Your task to perform on an android device: turn off wifi Image 0: 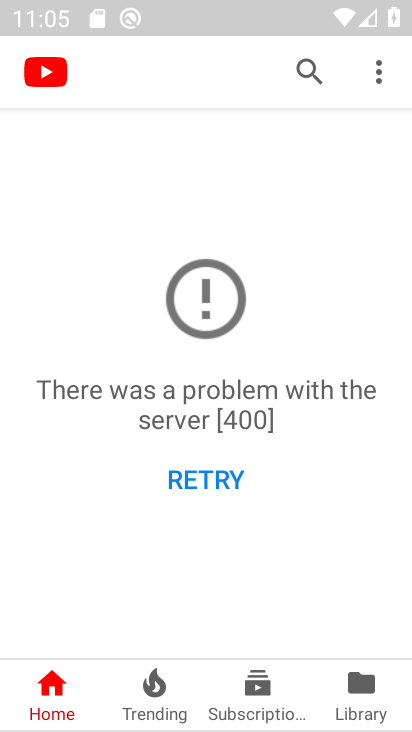
Step 0: press home button
Your task to perform on an android device: turn off wifi Image 1: 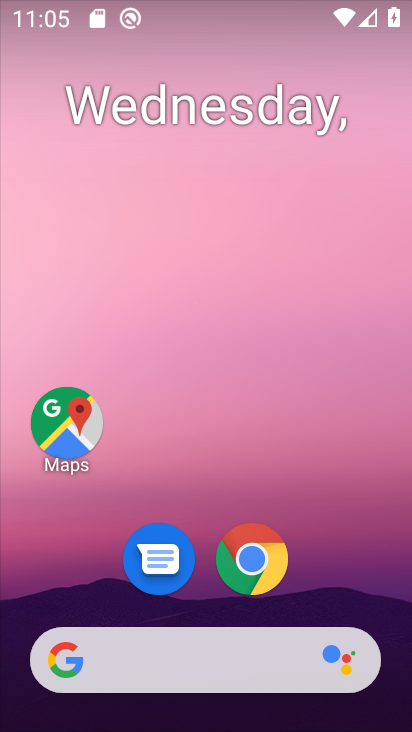
Step 1: drag from (234, 681) to (316, 161)
Your task to perform on an android device: turn off wifi Image 2: 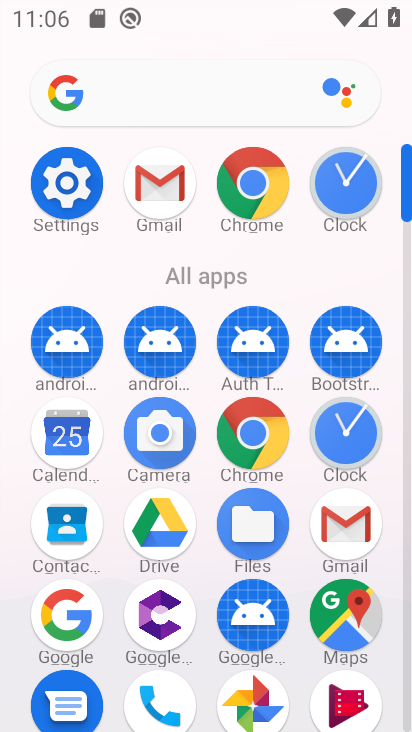
Step 2: click (54, 186)
Your task to perform on an android device: turn off wifi Image 3: 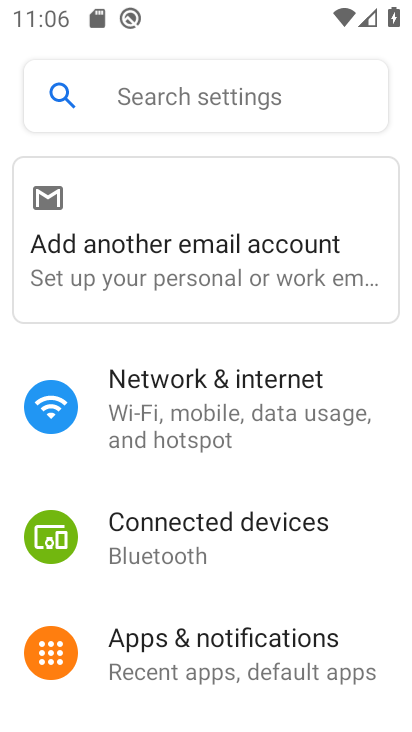
Step 3: click (162, 394)
Your task to perform on an android device: turn off wifi Image 4: 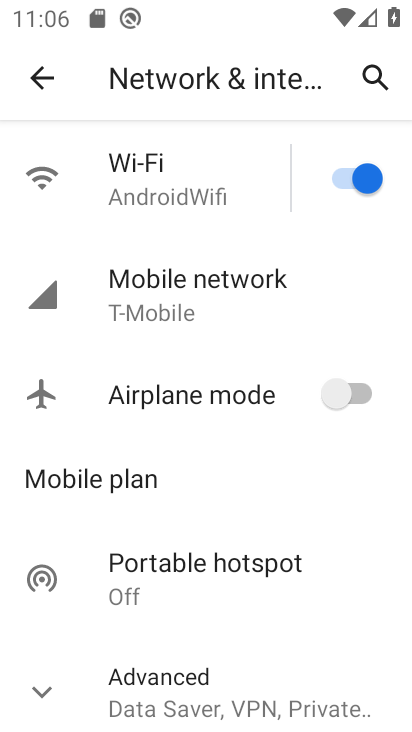
Step 4: click (340, 184)
Your task to perform on an android device: turn off wifi Image 5: 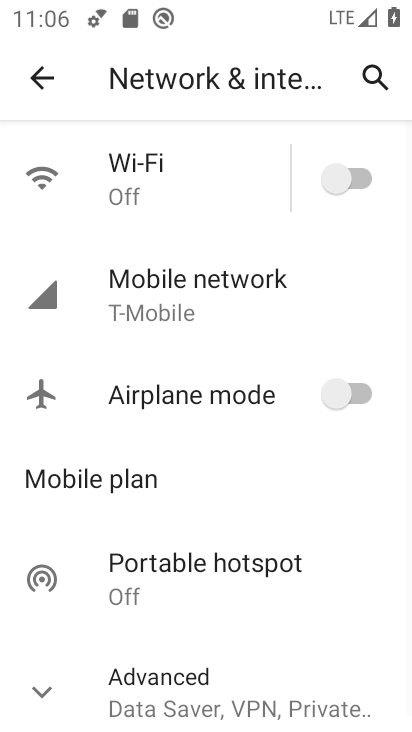
Step 5: task complete